Your task to perform on an android device: Go to battery settings Image 0: 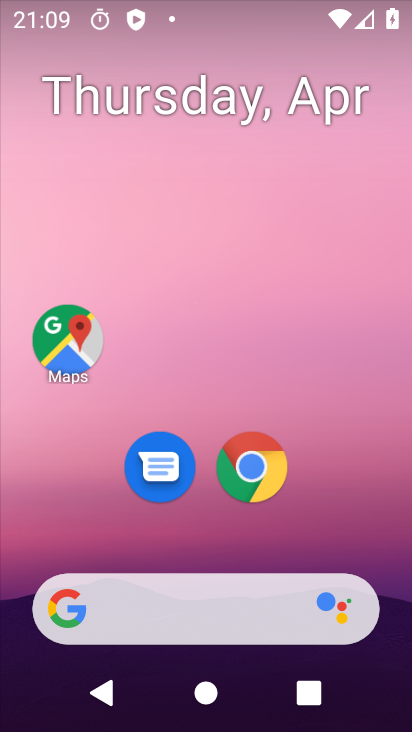
Step 0: drag from (201, 543) to (195, 1)
Your task to perform on an android device: Go to battery settings Image 1: 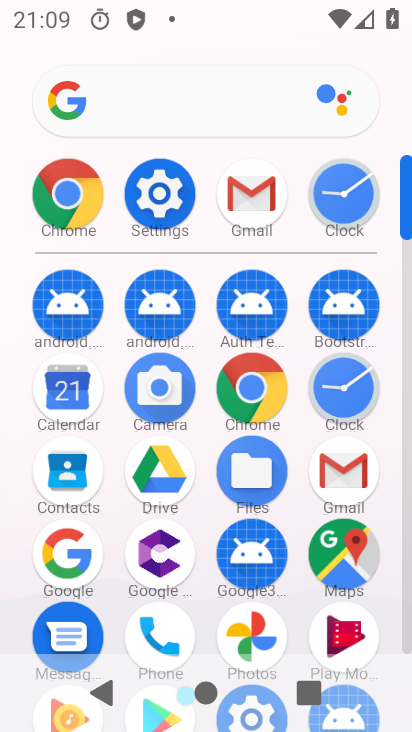
Step 1: click (154, 195)
Your task to perform on an android device: Go to battery settings Image 2: 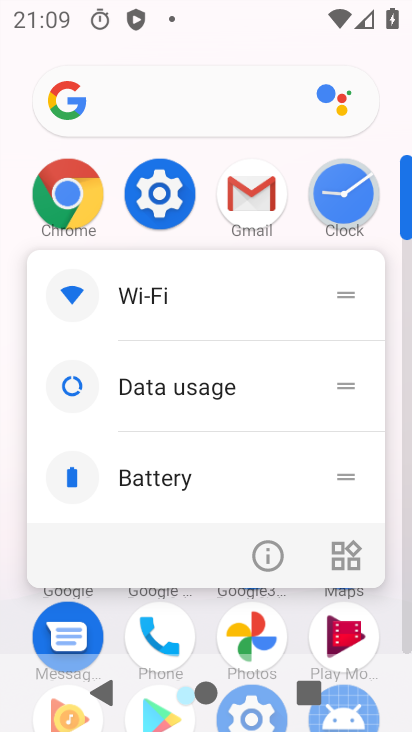
Step 2: click (157, 177)
Your task to perform on an android device: Go to battery settings Image 3: 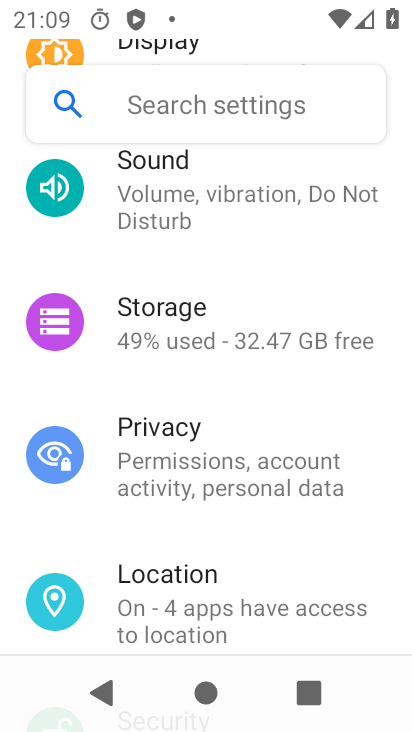
Step 3: drag from (185, 435) to (179, 21)
Your task to perform on an android device: Go to battery settings Image 4: 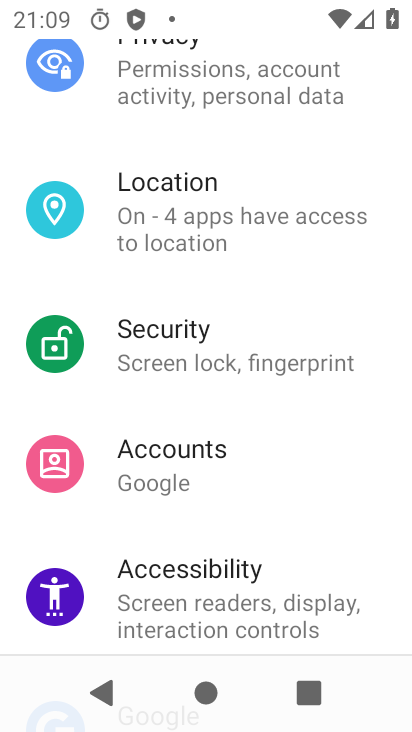
Step 4: drag from (194, 203) to (141, 659)
Your task to perform on an android device: Go to battery settings Image 5: 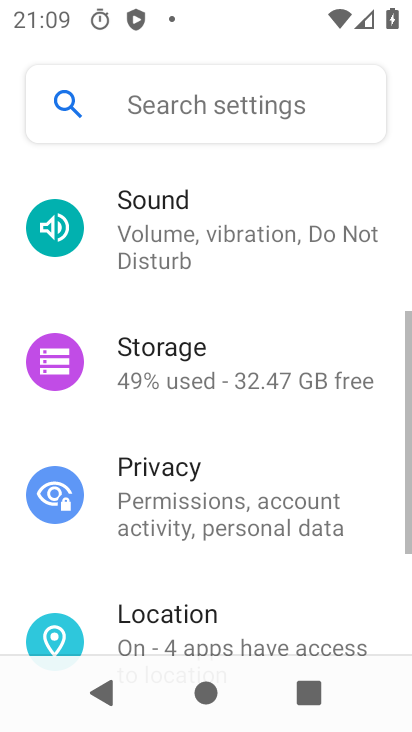
Step 5: drag from (202, 229) to (140, 613)
Your task to perform on an android device: Go to battery settings Image 6: 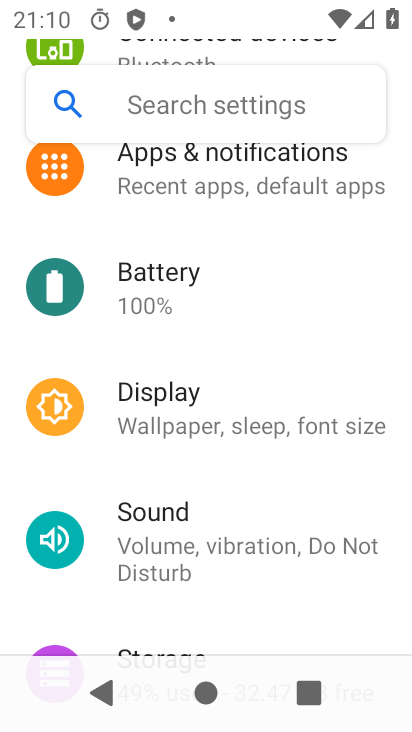
Step 6: click (153, 314)
Your task to perform on an android device: Go to battery settings Image 7: 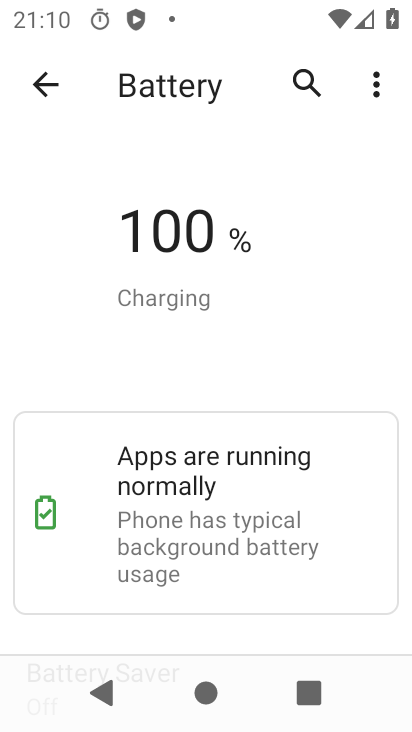
Step 7: task complete